Your task to perform on an android device: refresh tabs in the chrome app Image 0: 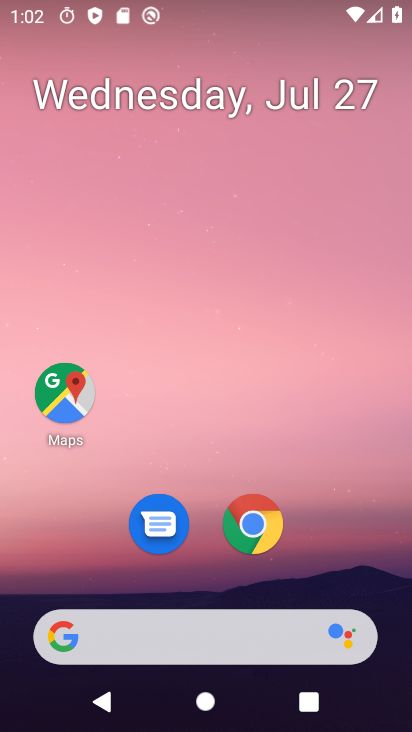
Step 0: drag from (345, 527) to (340, 148)
Your task to perform on an android device: refresh tabs in the chrome app Image 1: 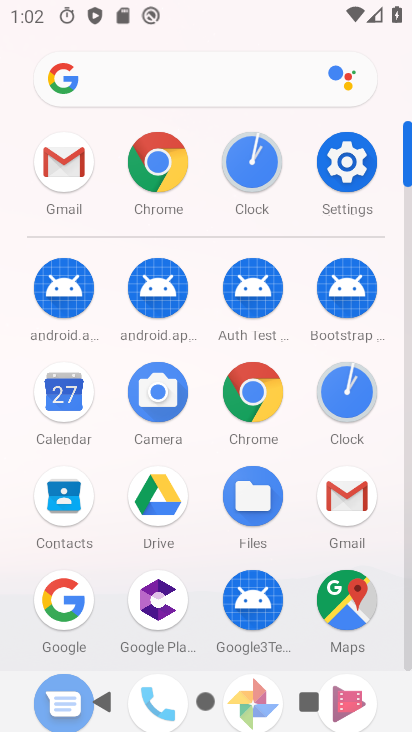
Step 1: click (257, 397)
Your task to perform on an android device: refresh tabs in the chrome app Image 2: 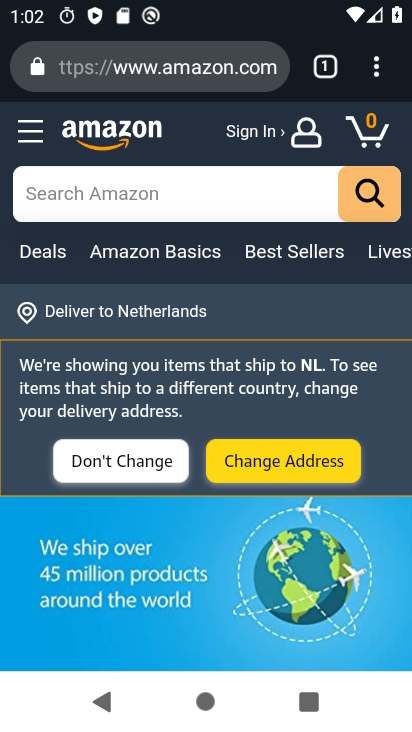
Step 2: click (378, 77)
Your task to perform on an android device: refresh tabs in the chrome app Image 3: 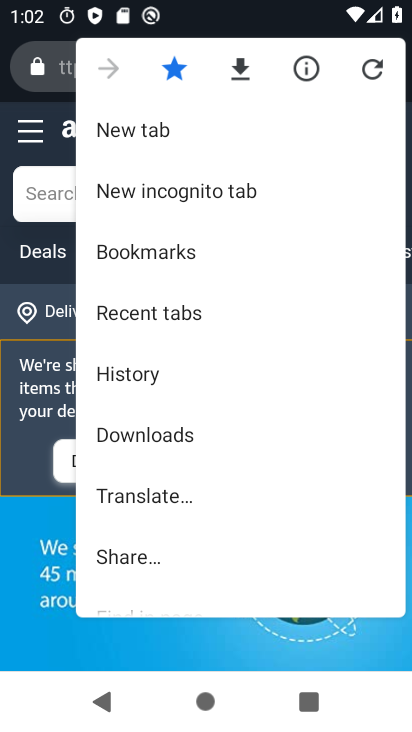
Step 3: click (369, 65)
Your task to perform on an android device: refresh tabs in the chrome app Image 4: 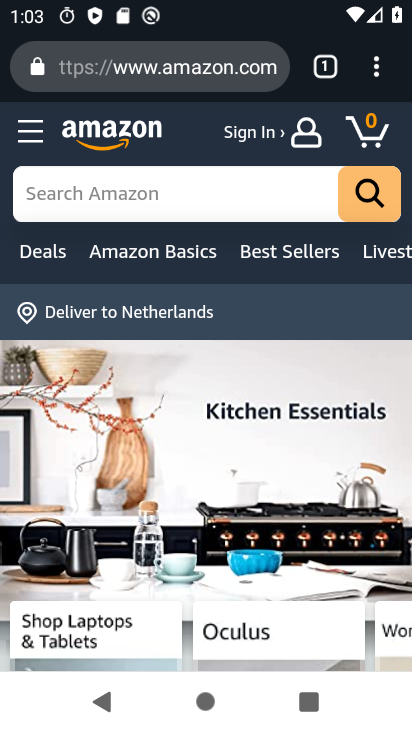
Step 4: task complete